Your task to perform on an android device: remove spam from my inbox in the gmail app Image 0: 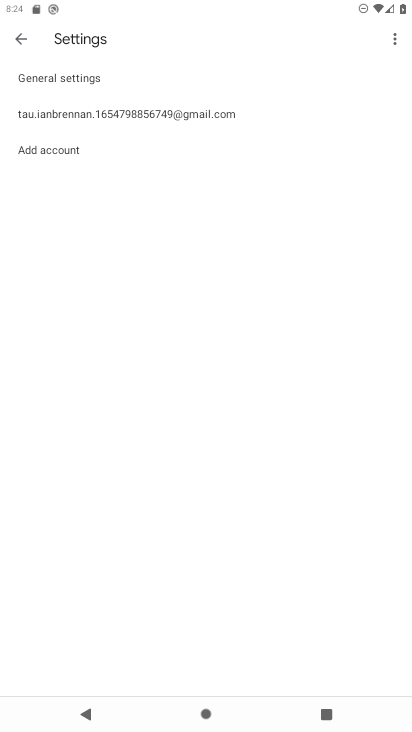
Step 0: press home button
Your task to perform on an android device: remove spam from my inbox in the gmail app Image 1: 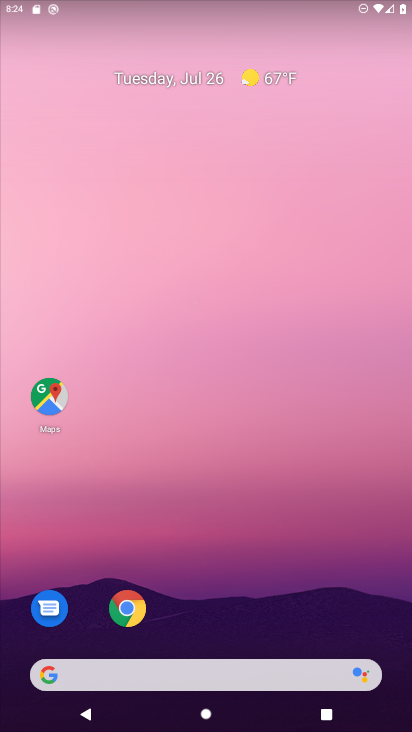
Step 1: drag from (205, 607) to (267, 1)
Your task to perform on an android device: remove spam from my inbox in the gmail app Image 2: 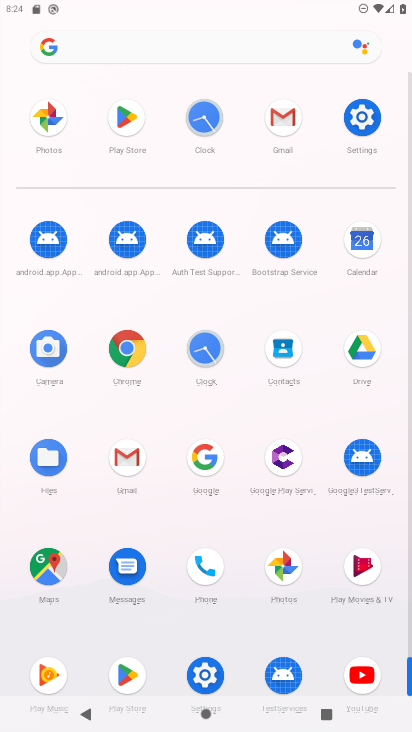
Step 2: click (122, 468)
Your task to perform on an android device: remove spam from my inbox in the gmail app Image 3: 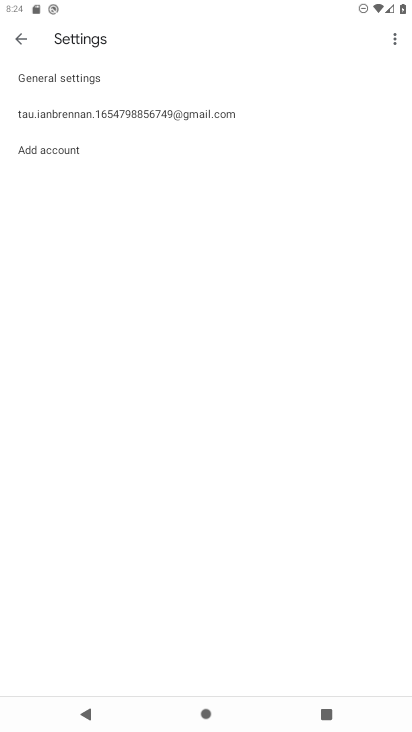
Step 3: click (20, 33)
Your task to perform on an android device: remove spam from my inbox in the gmail app Image 4: 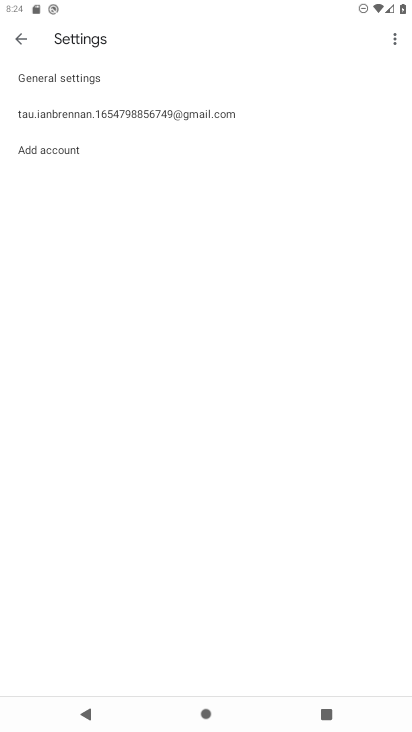
Step 4: click (20, 33)
Your task to perform on an android device: remove spam from my inbox in the gmail app Image 5: 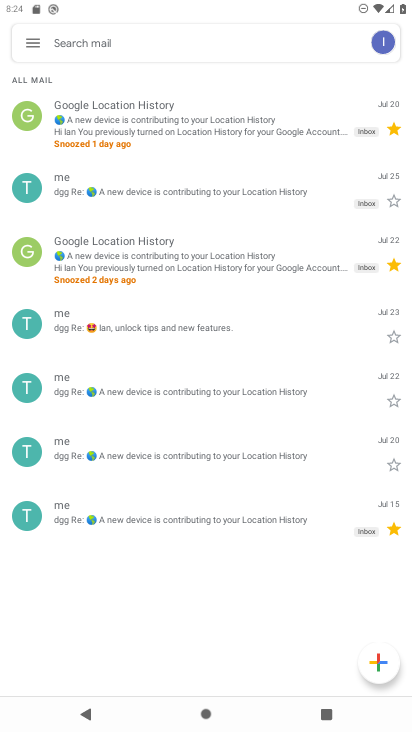
Step 5: click (22, 36)
Your task to perform on an android device: remove spam from my inbox in the gmail app Image 6: 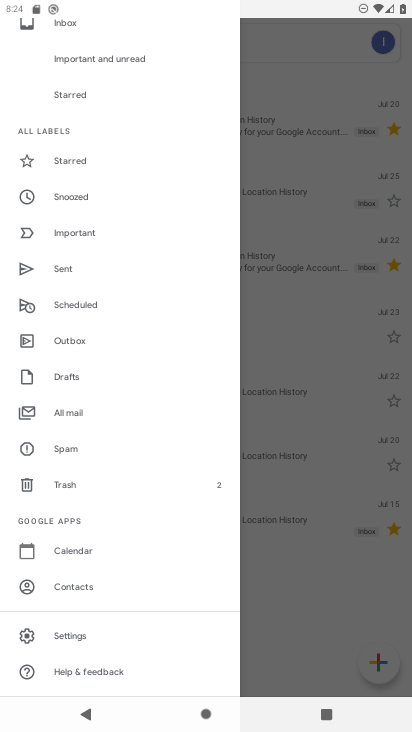
Step 6: click (69, 446)
Your task to perform on an android device: remove spam from my inbox in the gmail app Image 7: 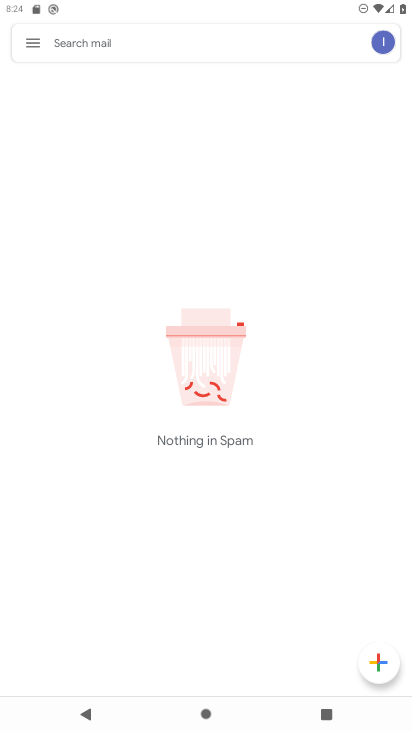
Step 7: task complete